Your task to perform on an android device: choose inbox layout in the gmail app Image 0: 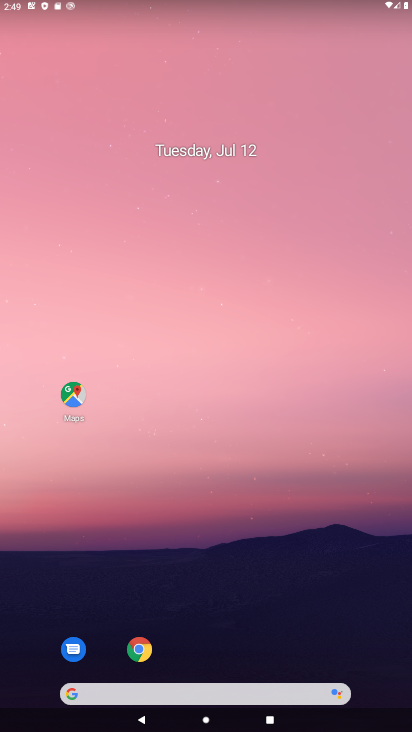
Step 0: drag from (203, 650) to (208, 144)
Your task to perform on an android device: choose inbox layout in the gmail app Image 1: 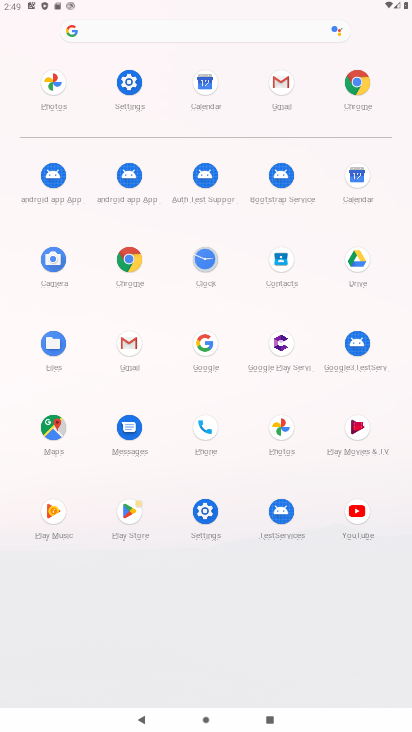
Step 1: click (270, 102)
Your task to perform on an android device: choose inbox layout in the gmail app Image 2: 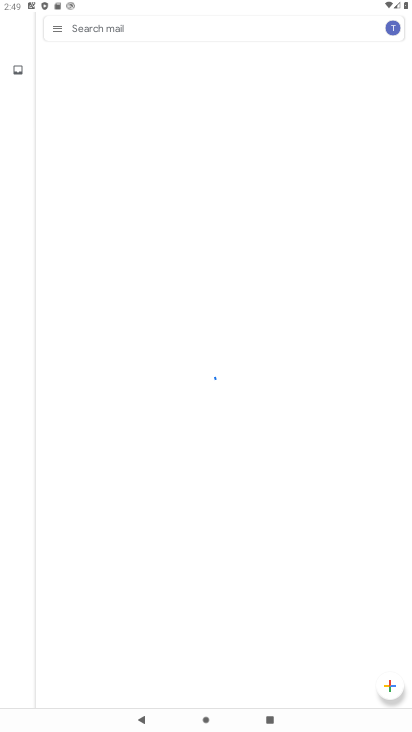
Step 2: click (57, 30)
Your task to perform on an android device: choose inbox layout in the gmail app Image 3: 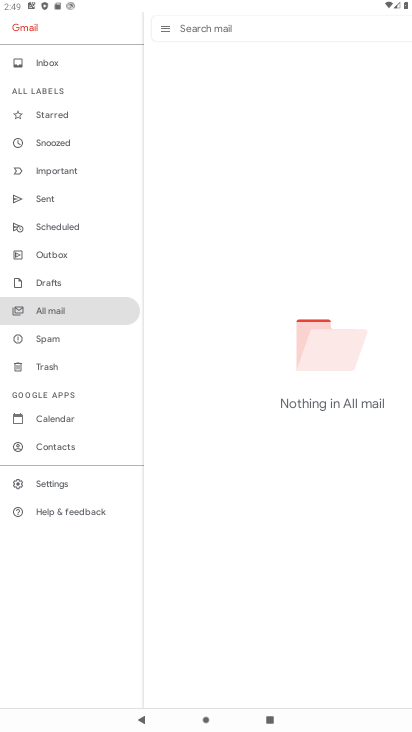
Step 3: click (56, 487)
Your task to perform on an android device: choose inbox layout in the gmail app Image 4: 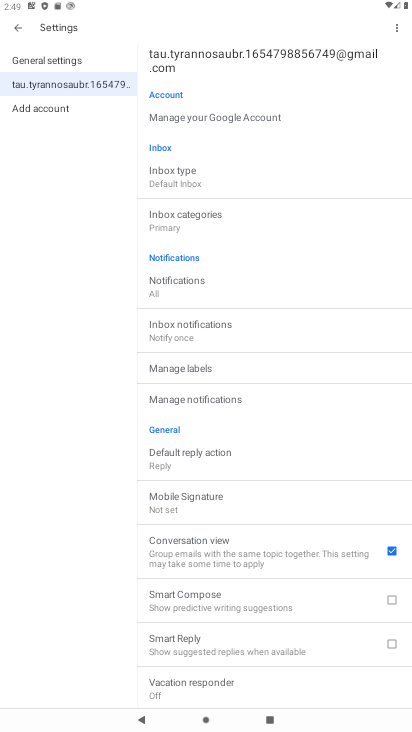
Step 4: click (24, 51)
Your task to perform on an android device: choose inbox layout in the gmail app Image 5: 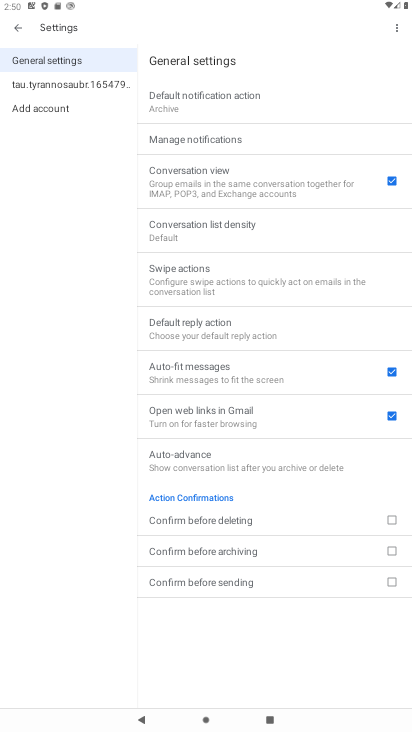
Step 5: task complete